Your task to perform on an android device: What's the weather? Image 0: 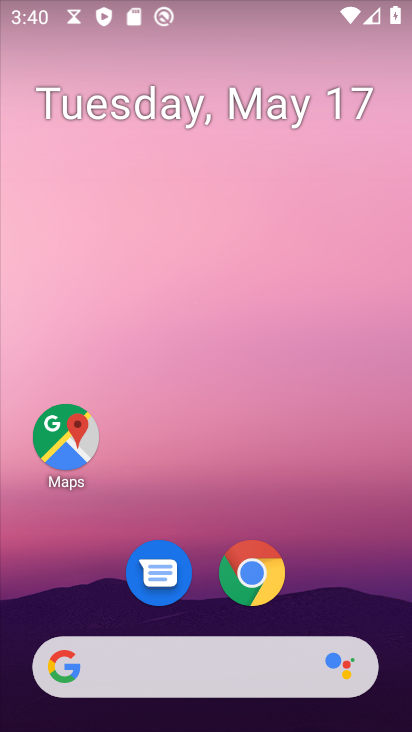
Step 0: drag from (348, 586) to (249, 157)
Your task to perform on an android device: What's the weather? Image 1: 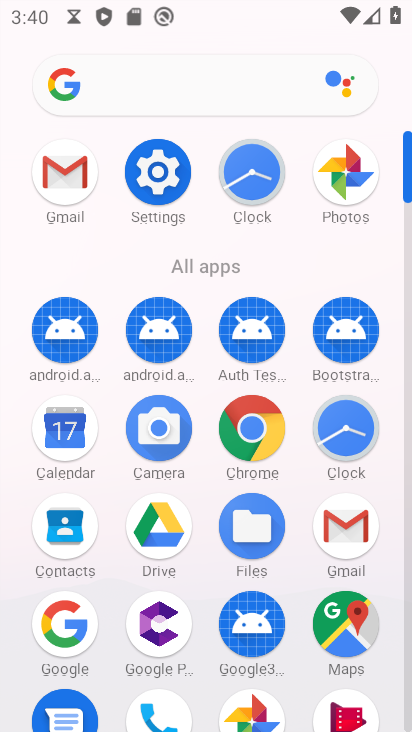
Step 1: click (258, 442)
Your task to perform on an android device: What's the weather? Image 2: 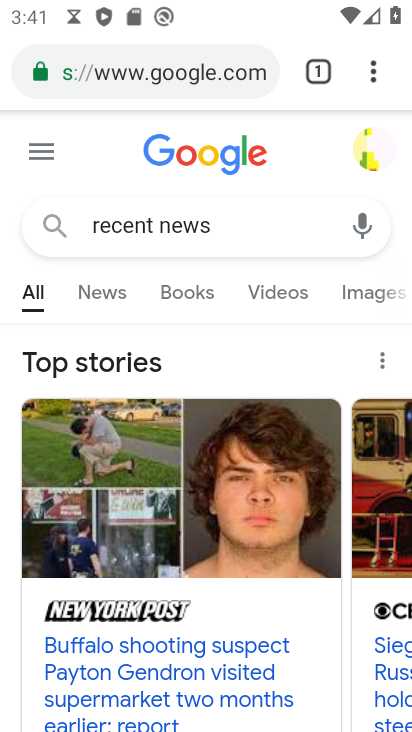
Step 2: click (205, 79)
Your task to perform on an android device: What's the weather? Image 3: 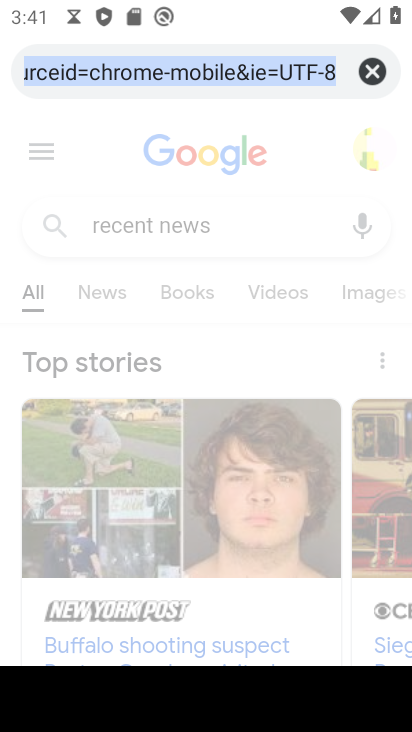
Step 3: type "What's the weather?"
Your task to perform on an android device: What's the weather? Image 4: 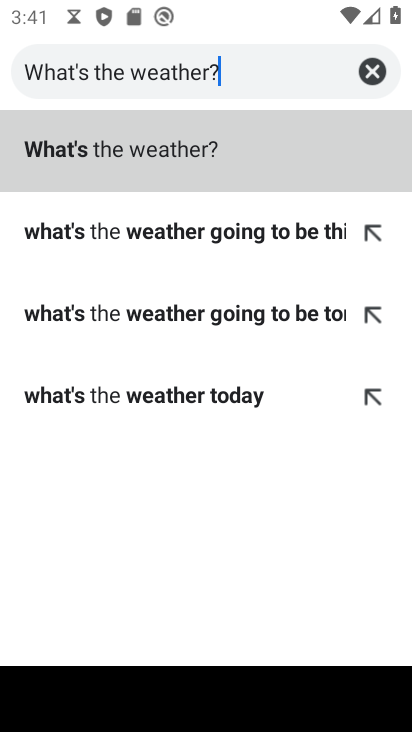
Step 4: click (154, 151)
Your task to perform on an android device: What's the weather? Image 5: 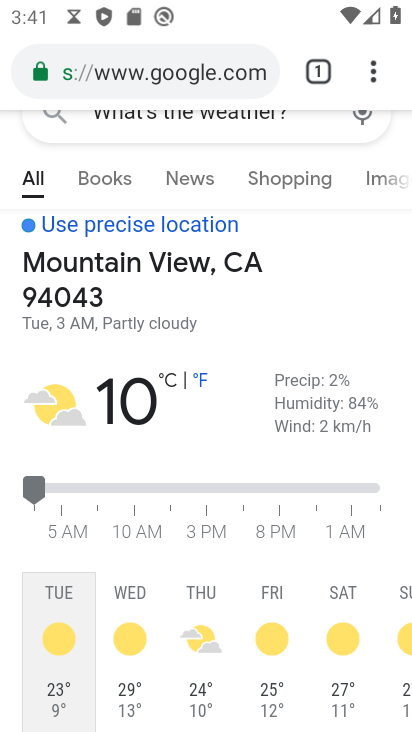
Step 5: task complete